Your task to perform on an android device: Is it going to rain this weekend? Image 0: 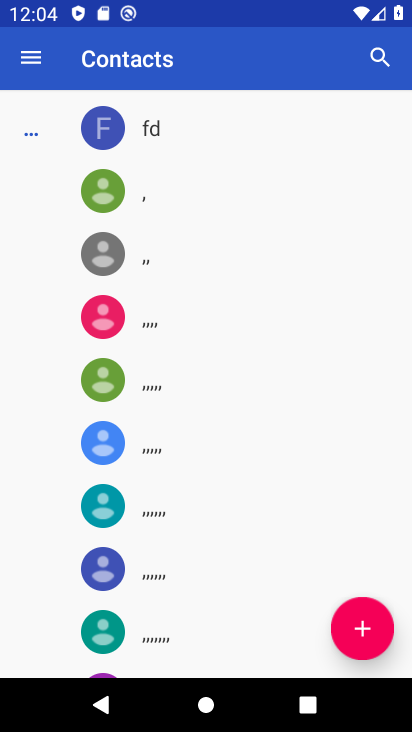
Step 0: press home button
Your task to perform on an android device: Is it going to rain this weekend? Image 1: 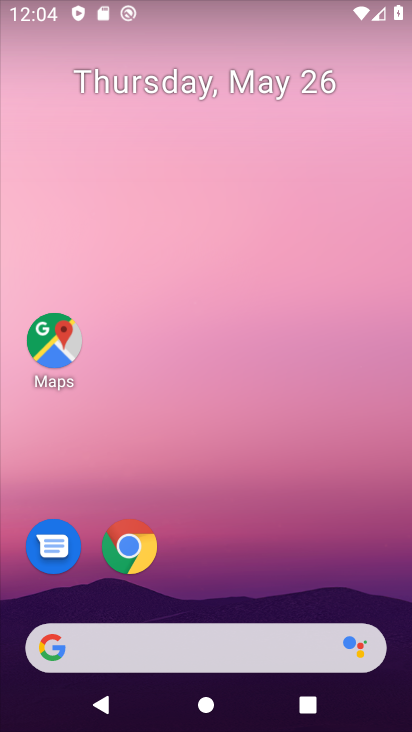
Step 1: drag from (383, 610) to (225, 109)
Your task to perform on an android device: Is it going to rain this weekend? Image 2: 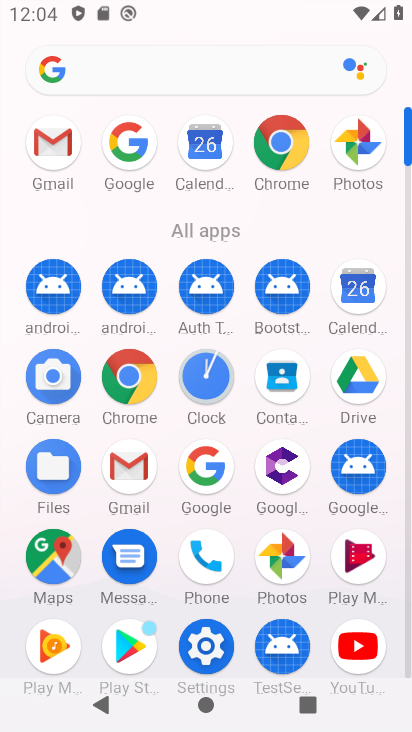
Step 2: click (353, 298)
Your task to perform on an android device: Is it going to rain this weekend? Image 3: 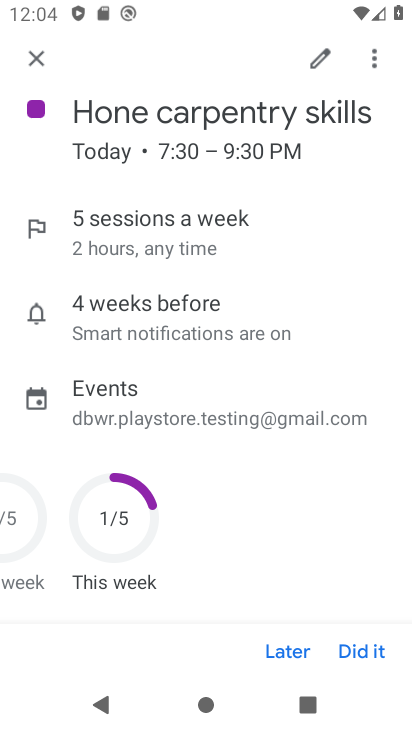
Step 3: press back button
Your task to perform on an android device: Is it going to rain this weekend? Image 4: 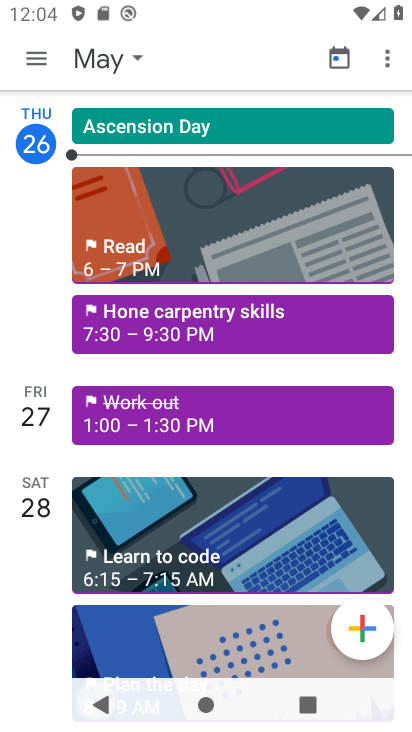
Step 4: press home button
Your task to perform on an android device: Is it going to rain this weekend? Image 5: 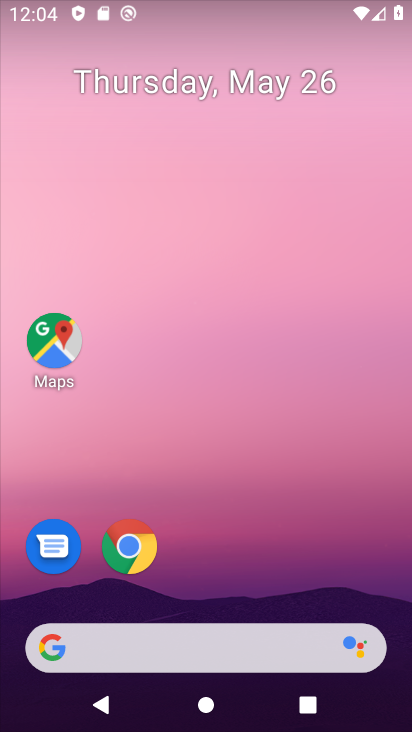
Step 5: drag from (376, 596) to (301, 47)
Your task to perform on an android device: Is it going to rain this weekend? Image 6: 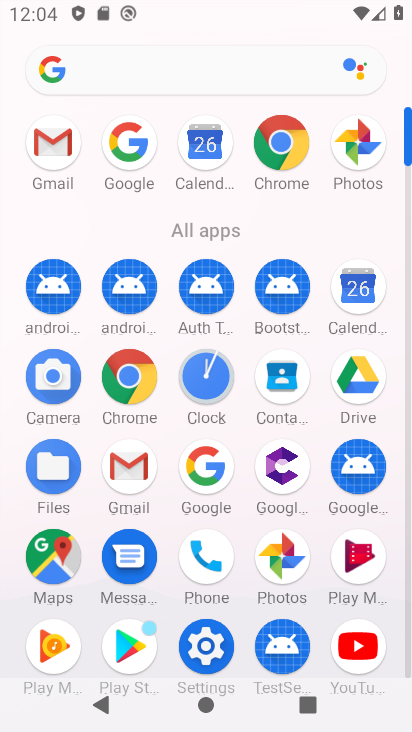
Step 6: click (213, 467)
Your task to perform on an android device: Is it going to rain this weekend? Image 7: 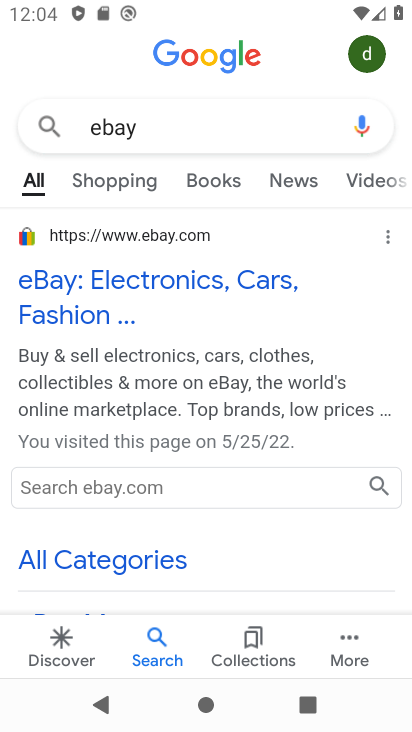
Step 7: press back button
Your task to perform on an android device: Is it going to rain this weekend? Image 8: 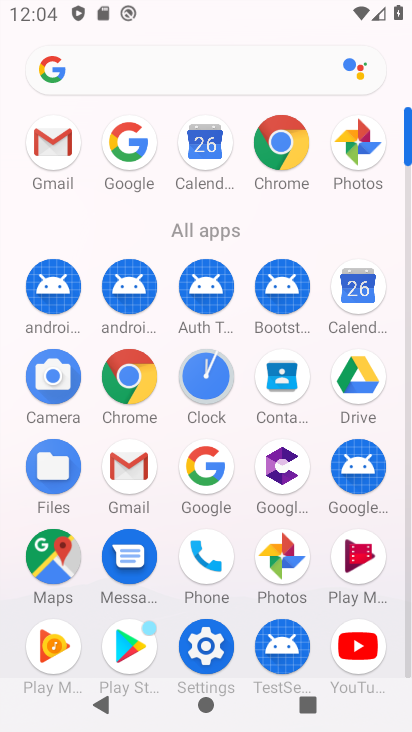
Step 8: click (211, 488)
Your task to perform on an android device: Is it going to rain this weekend? Image 9: 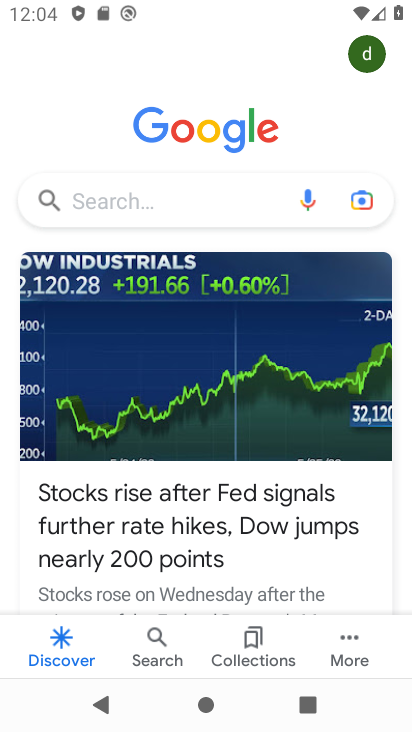
Step 9: click (139, 192)
Your task to perform on an android device: Is it going to rain this weekend? Image 10: 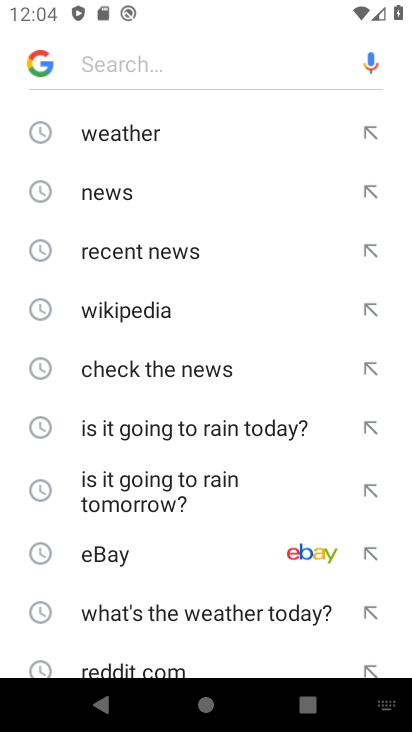
Step 10: drag from (178, 613) to (260, 190)
Your task to perform on an android device: Is it going to rain this weekend? Image 11: 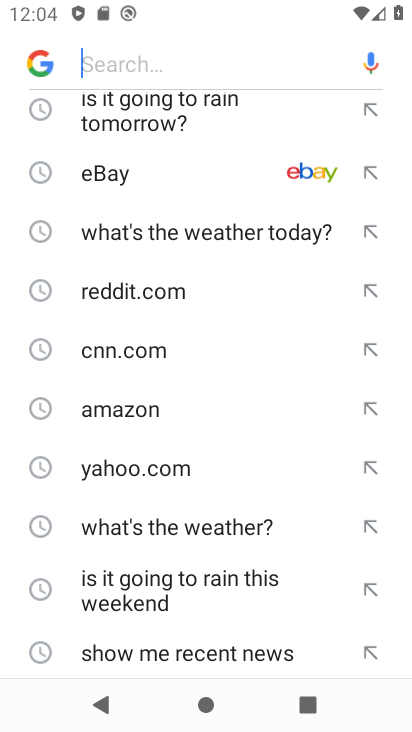
Step 11: click (163, 593)
Your task to perform on an android device: Is it going to rain this weekend? Image 12: 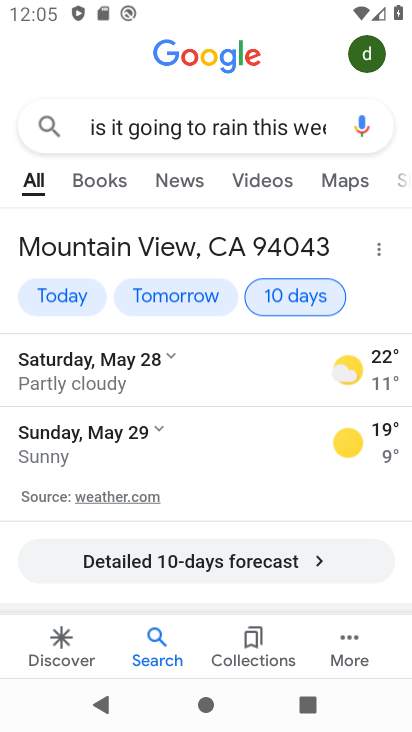
Step 12: task complete